Your task to perform on an android device: Go to calendar. Show me events next week Image 0: 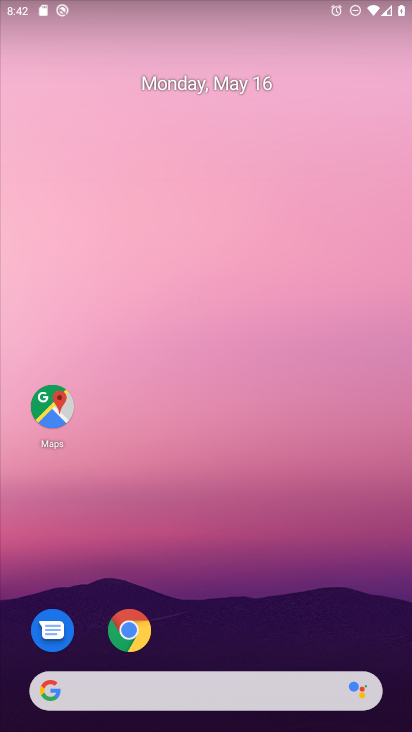
Step 0: click (252, 86)
Your task to perform on an android device: Go to calendar. Show me events next week Image 1: 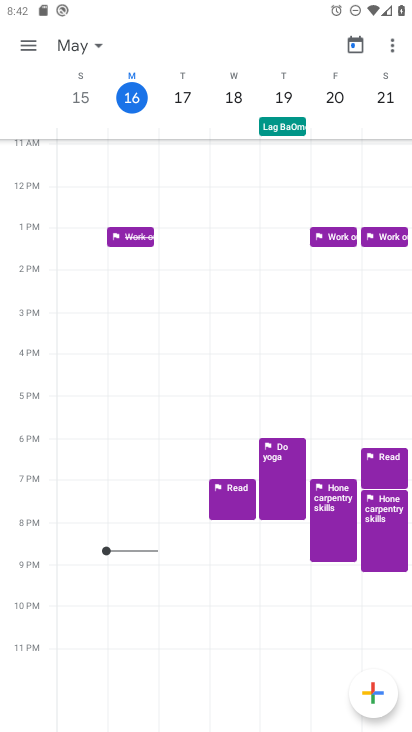
Step 1: click (32, 45)
Your task to perform on an android device: Go to calendar. Show me events next week Image 2: 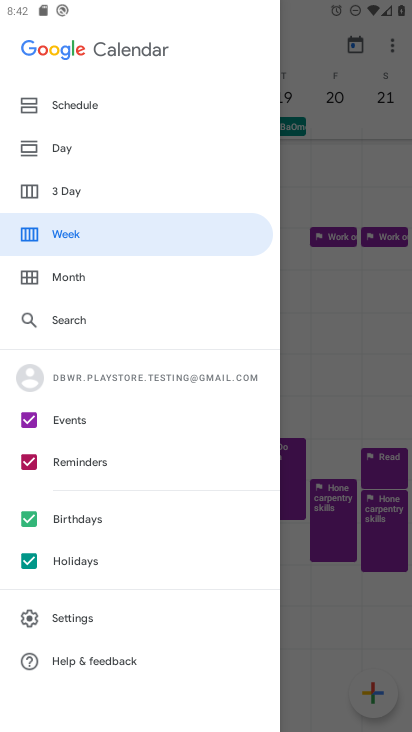
Step 2: click (50, 230)
Your task to perform on an android device: Go to calendar. Show me events next week Image 3: 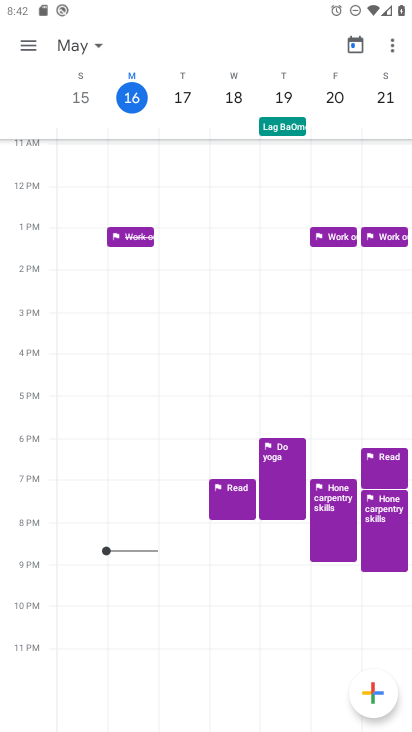
Step 3: task complete